Your task to perform on an android device: Open eBay Image 0: 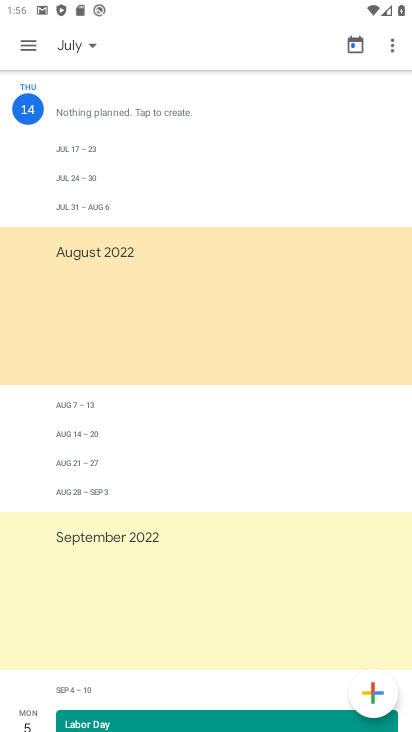
Step 0: press home button
Your task to perform on an android device: Open eBay Image 1: 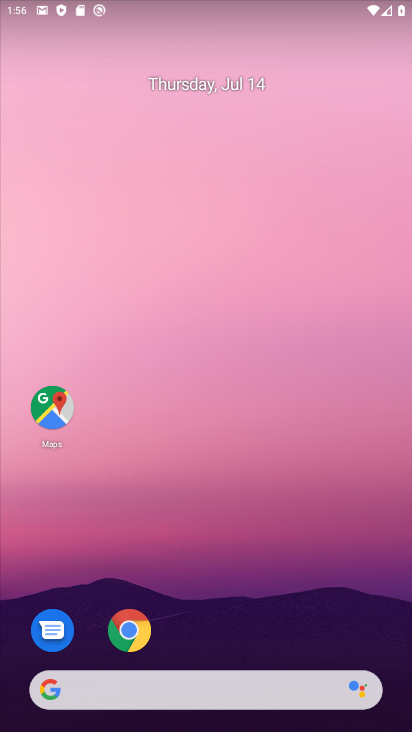
Step 1: click (135, 633)
Your task to perform on an android device: Open eBay Image 2: 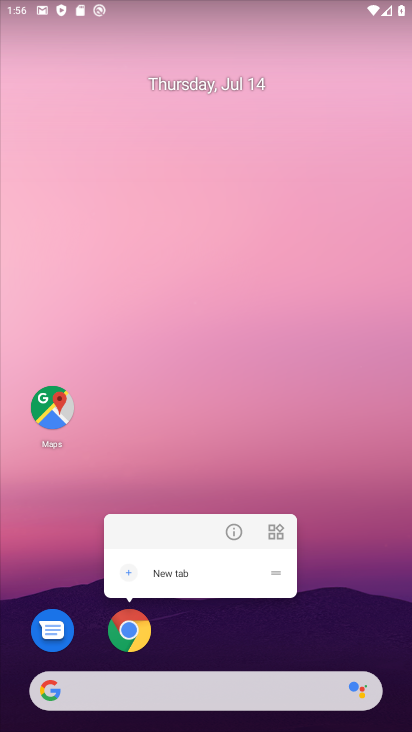
Step 2: click (128, 636)
Your task to perform on an android device: Open eBay Image 3: 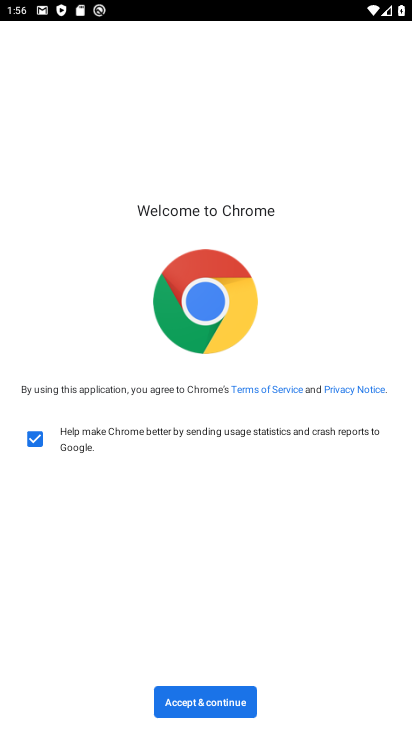
Step 3: click (224, 703)
Your task to perform on an android device: Open eBay Image 4: 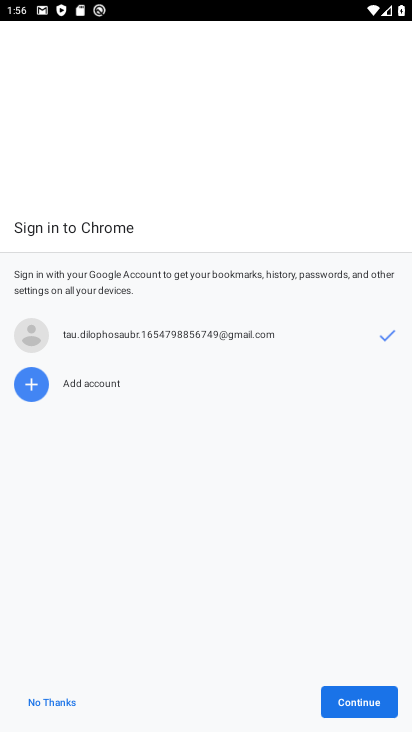
Step 4: click (358, 695)
Your task to perform on an android device: Open eBay Image 5: 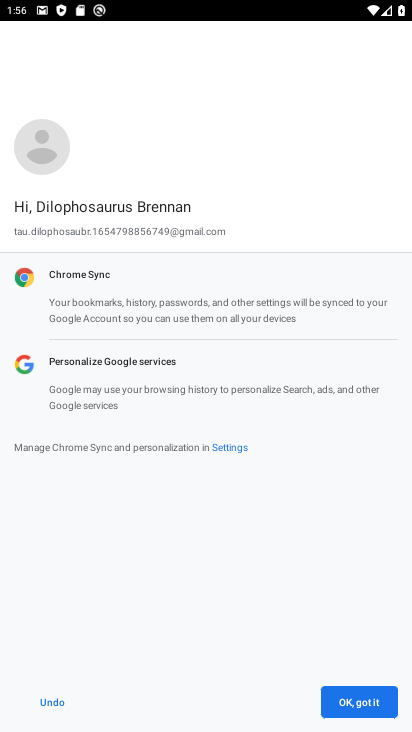
Step 5: click (350, 701)
Your task to perform on an android device: Open eBay Image 6: 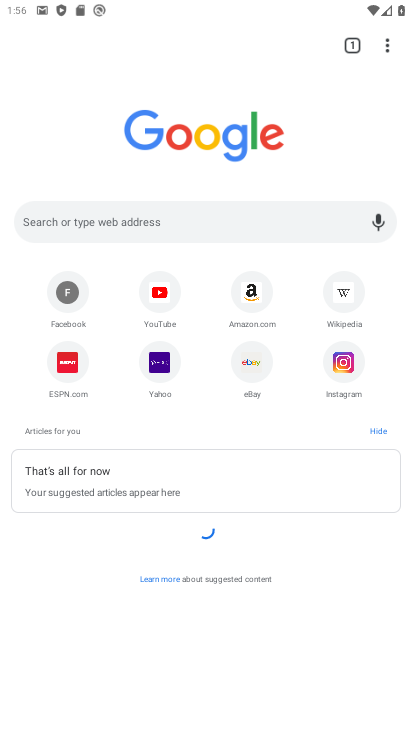
Step 6: click (249, 373)
Your task to perform on an android device: Open eBay Image 7: 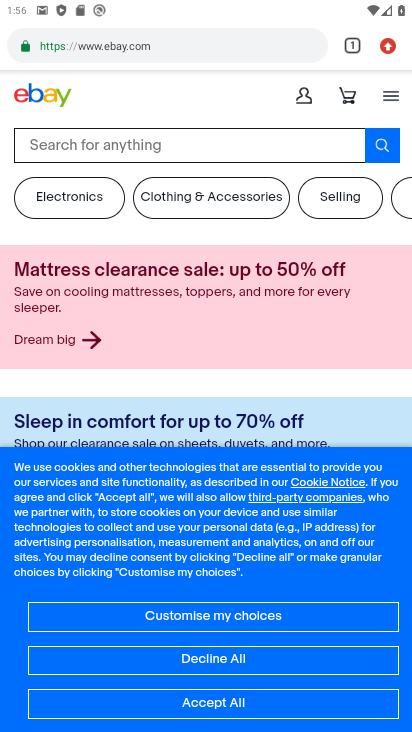
Step 7: click (250, 696)
Your task to perform on an android device: Open eBay Image 8: 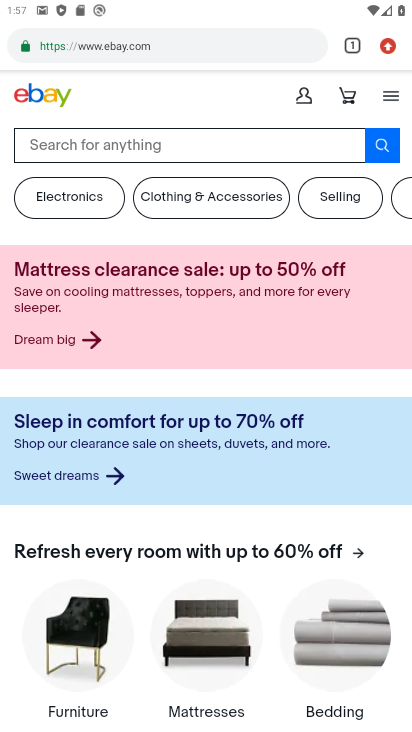
Step 8: task complete